Your task to perform on an android device: show emergency info Image 0: 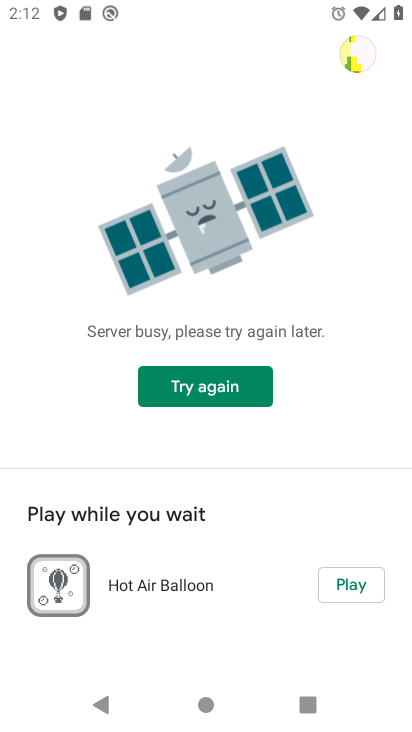
Step 0: press home button
Your task to perform on an android device: show emergency info Image 1: 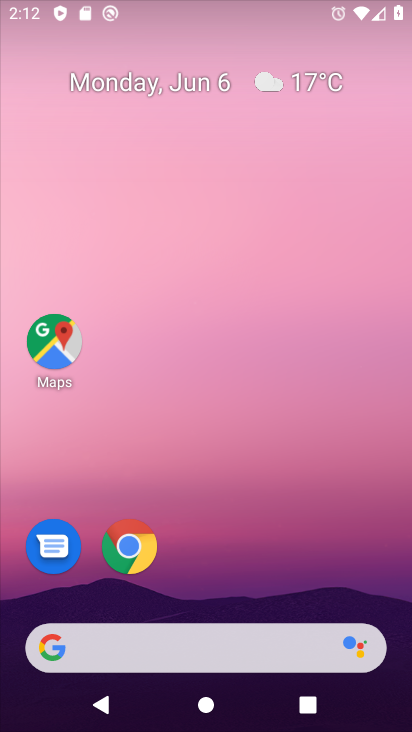
Step 1: drag from (264, 585) to (235, 195)
Your task to perform on an android device: show emergency info Image 2: 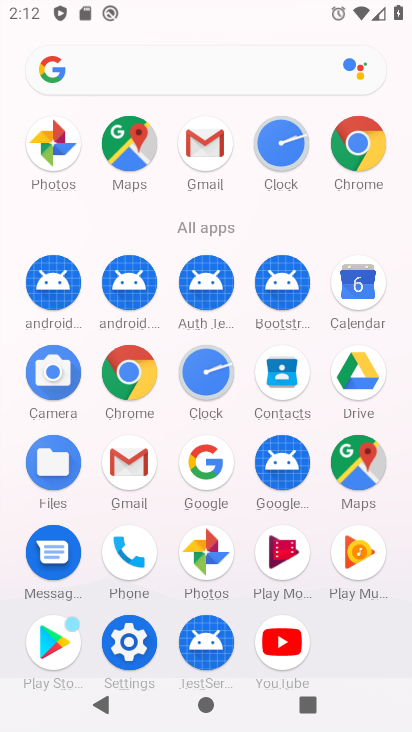
Step 2: click (124, 632)
Your task to perform on an android device: show emergency info Image 3: 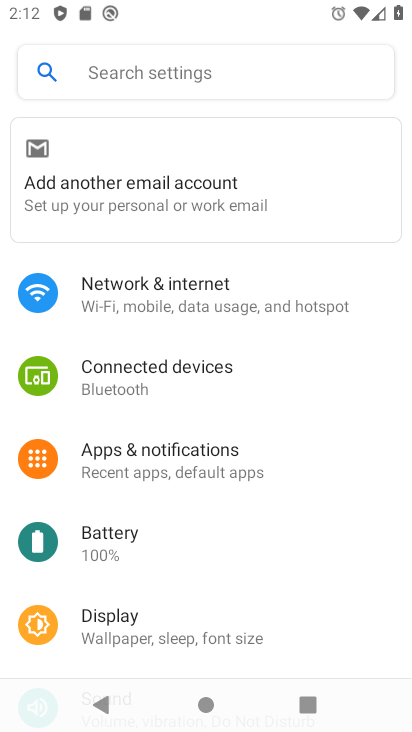
Step 3: drag from (180, 595) to (231, 217)
Your task to perform on an android device: show emergency info Image 4: 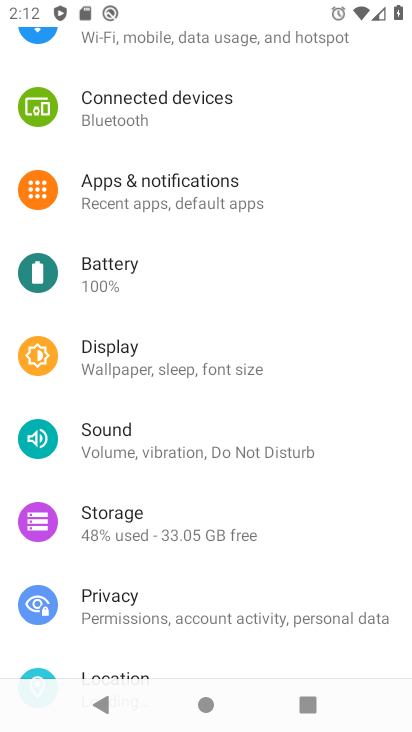
Step 4: drag from (156, 606) to (192, 270)
Your task to perform on an android device: show emergency info Image 5: 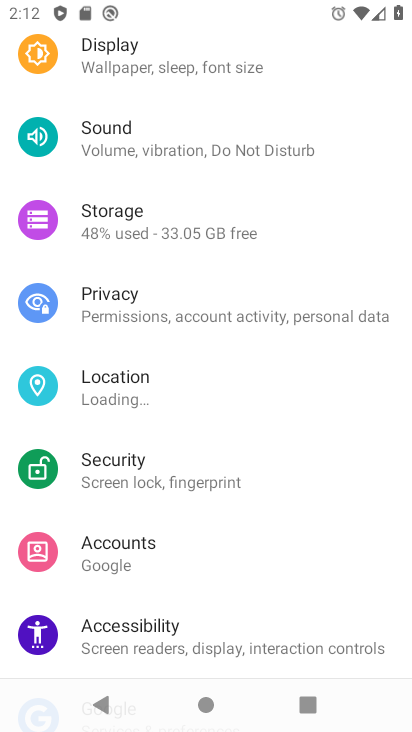
Step 5: click (128, 631)
Your task to perform on an android device: show emergency info Image 6: 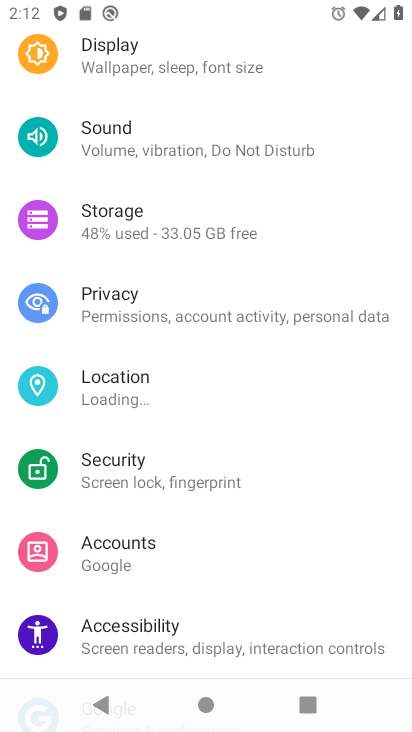
Step 6: drag from (132, 626) to (145, 273)
Your task to perform on an android device: show emergency info Image 7: 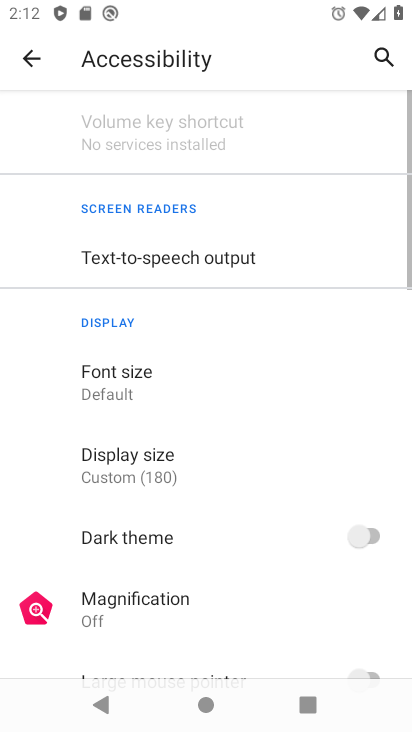
Step 7: click (45, 61)
Your task to perform on an android device: show emergency info Image 8: 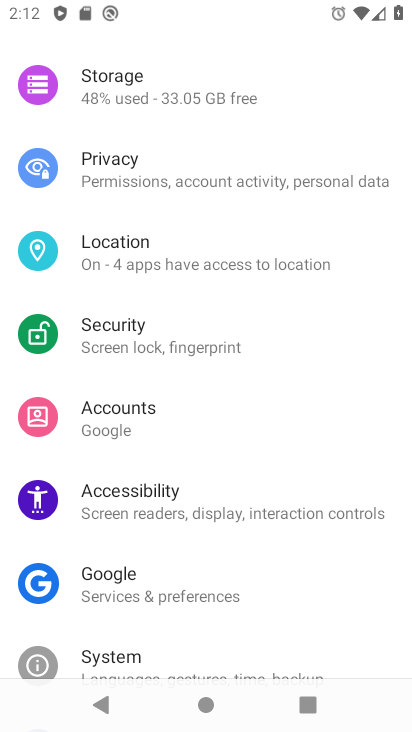
Step 8: drag from (172, 573) to (156, 116)
Your task to perform on an android device: show emergency info Image 9: 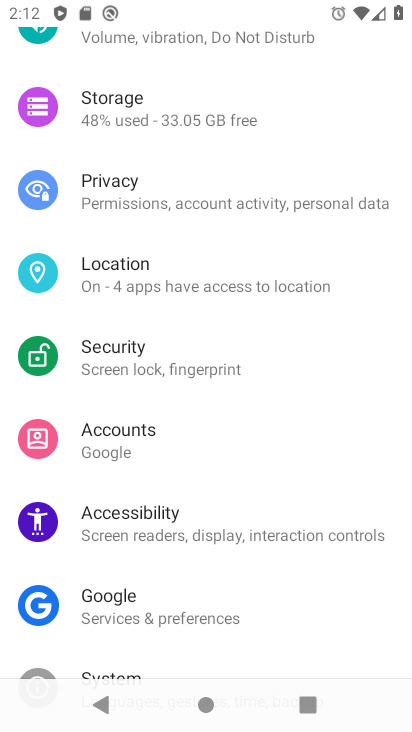
Step 9: click (132, 631)
Your task to perform on an android device: show emergency info Image 10: 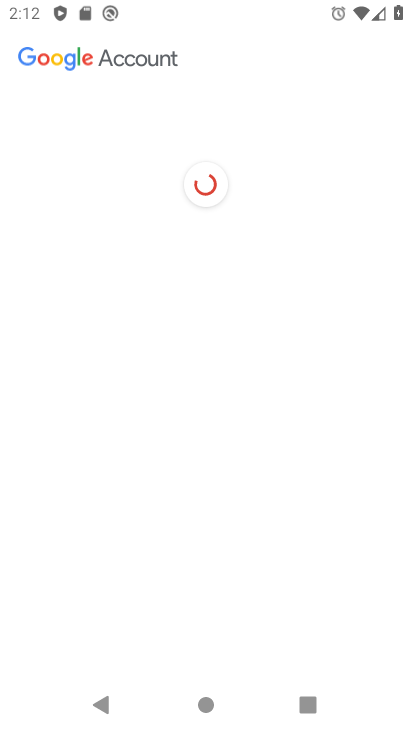
Step 10: press back button
Your task to perform on an android device: show emergency info Image 11: 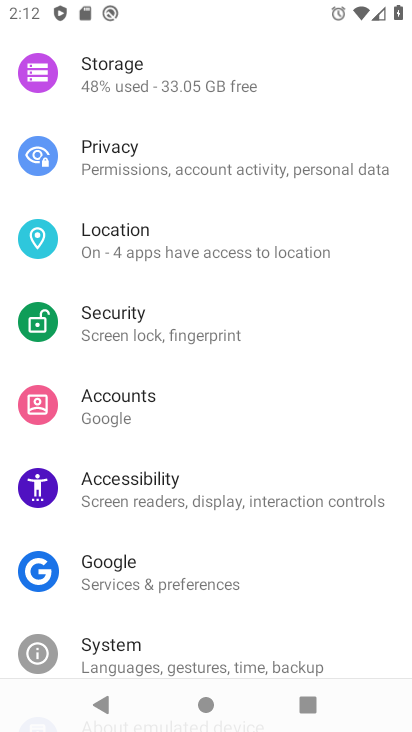
Step 11: drag from (234, 618) to (282, 305)
Your task to perform on an android device: show emergency info Image 12: 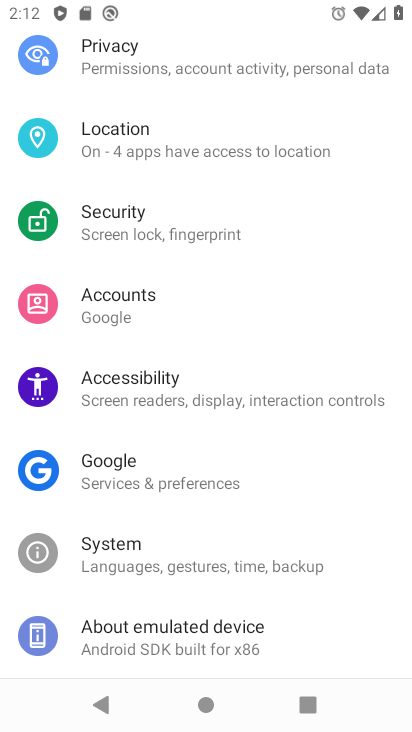
Step 12: click (123, 636)
Your task to perform on an android device: show emergency info Image 13: 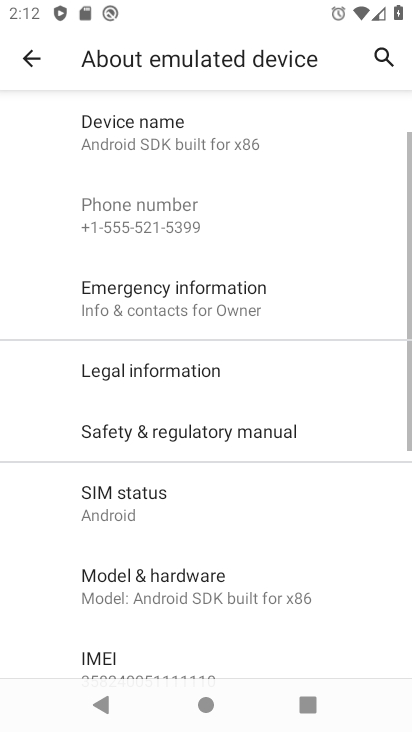
Step 13: click (177, 272)
Your task to perform on an android device: show emergency info Image 14: 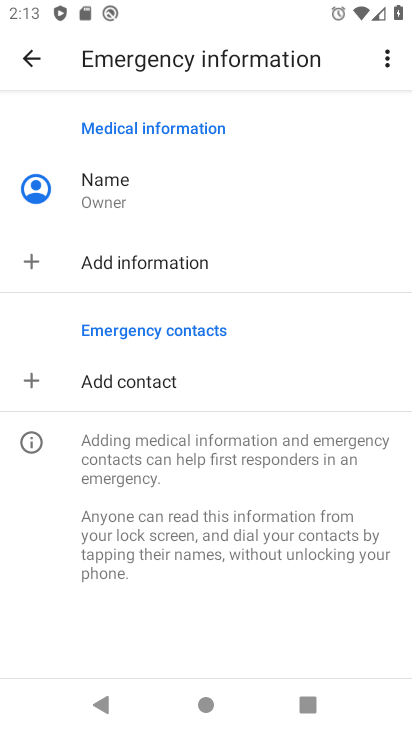
Step 14: task complete